Your task to perform on an android device: Open battery settings Image 0: 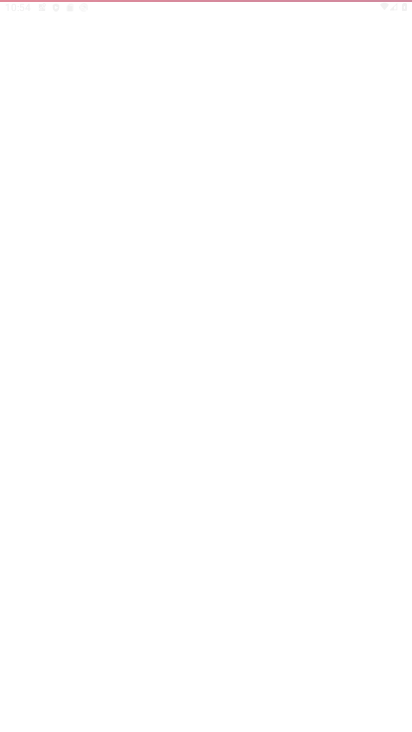
Step 0: press home button
Your task to perform on an android device: Open battery settings Image 1: 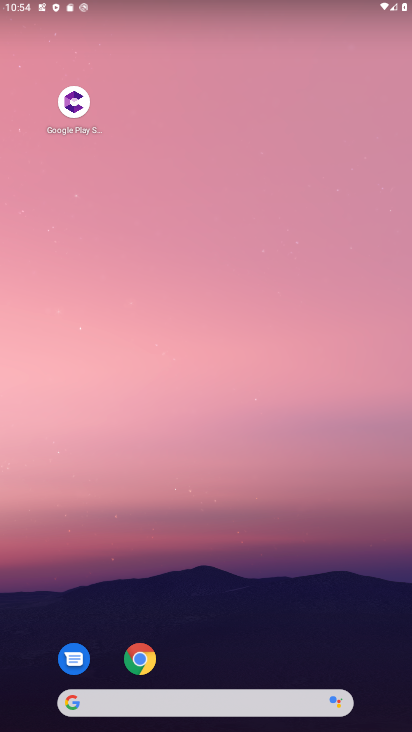
Step 1: drag from (221, 664) to (232, 162)
Your task to perform on an android device: Open battery settings Image 2: 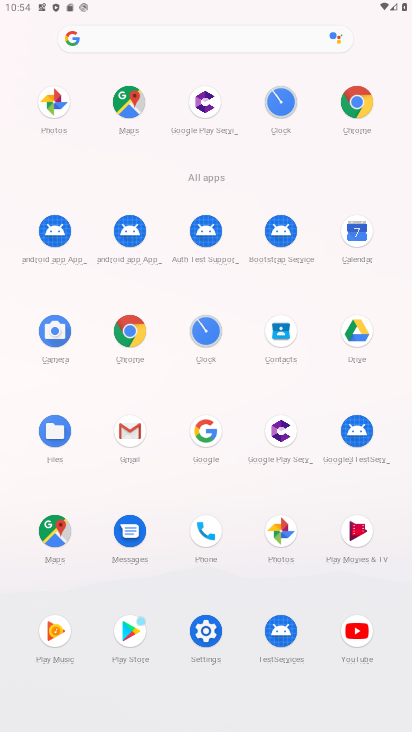
Step 2: click (202, 628)
Your task to perform on an android device: Open battery settings Image 3: 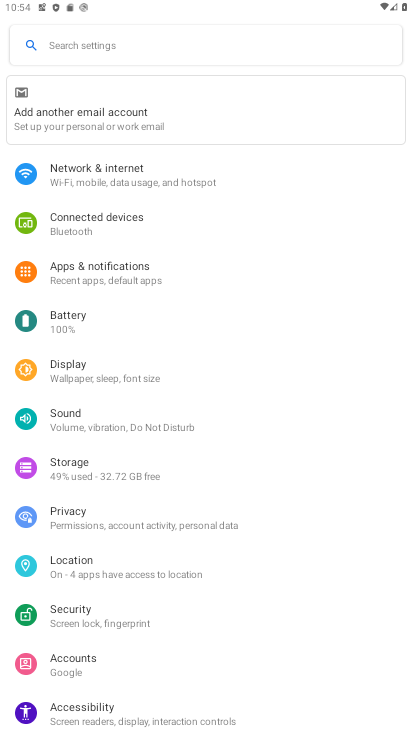
Step 3: click (82, 316)
Your task to perform on an android device: Open battery settings Image 4: 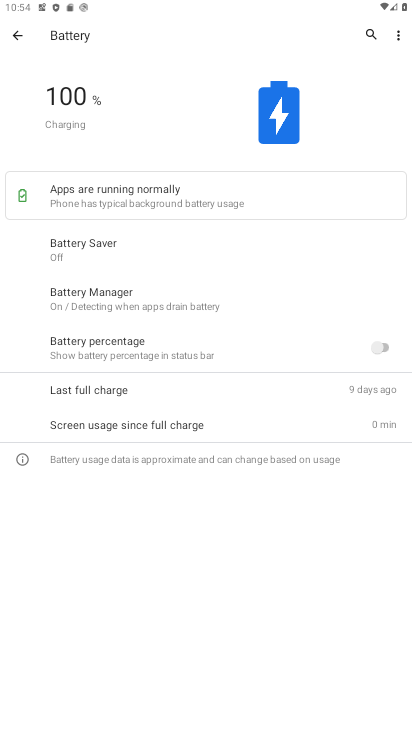
Step 4: task complete